Your task to perform on an android device: check the backup settings in the google photos Image 0: 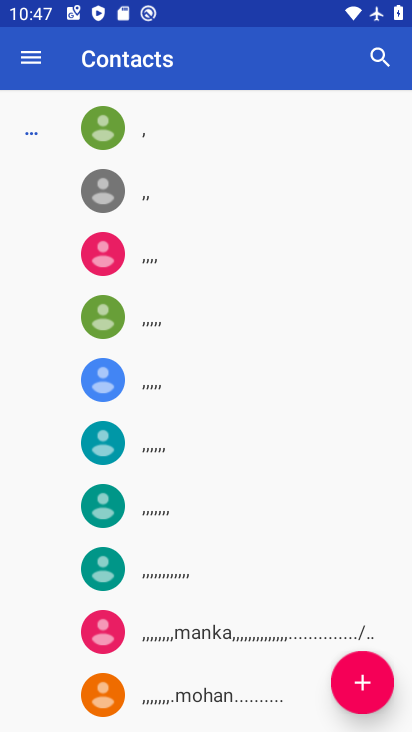
Step 0: press home button
Your task to perform on an android device: check the backup settings in the google photos Image 1: 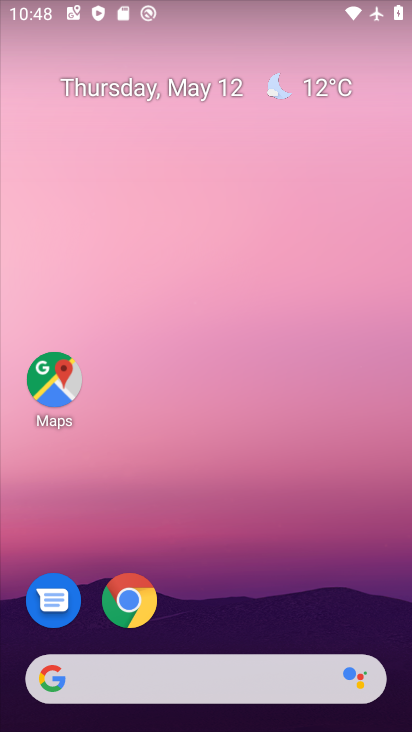
Step 1: drag from (267, 582) to (181, 247)
Your task to perform on an android device: check the backup settings in the google photos Image 2: 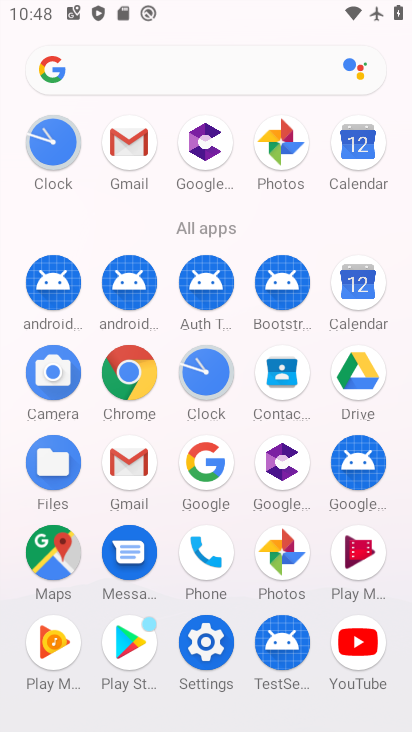
Step 2: click (279, 162)
Your task to perform on an android device: check the backup settings in the google photos Image 3: 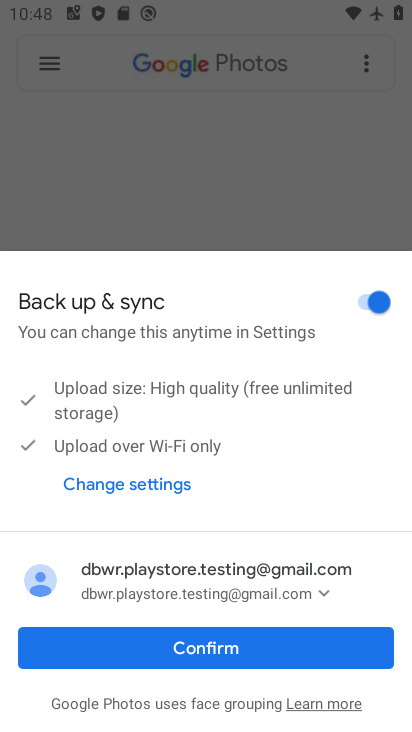
Step 3: click (307, 640)
Your task to perform on an android device: check the backup settings in the google photos Image 4: 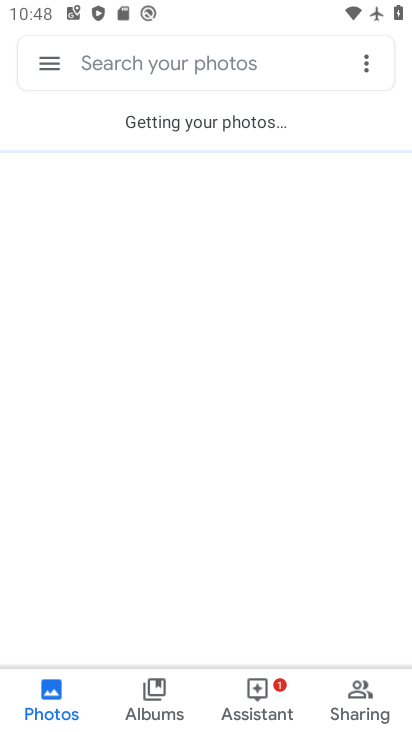
Step 4: click (48, 62)
Your task to perform on an android device: check the backup settings in the google photos Image 5: 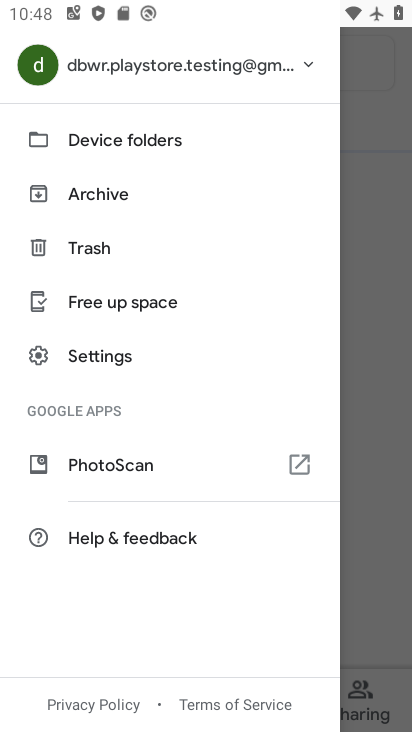
Step 5: click (92, 349)
Your task to perform on an android device: check the backup settings in the google photos Image 6: 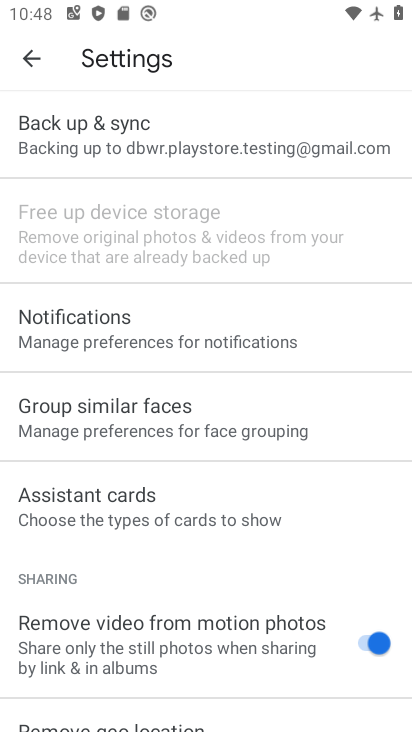
Step 6: click (192, 133)
Your task to perform on an android device: check the backup settings in the google photos Image 7: 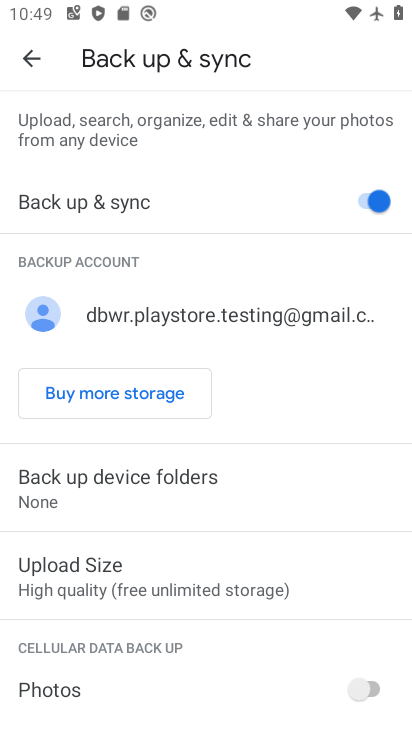
Step 7: task complete